Your task to perform on an android device: Turn off the flashlight Image 0: 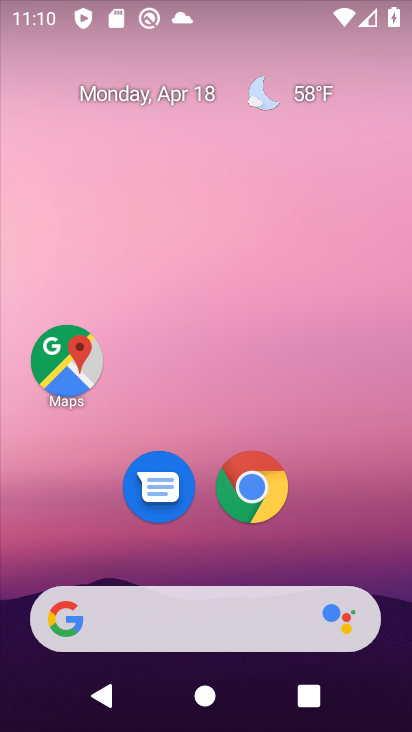
Step 0: drag from (344, 7) to (228, 583)
Your task to perform on an android device: Turn off the flashlight Image 1: 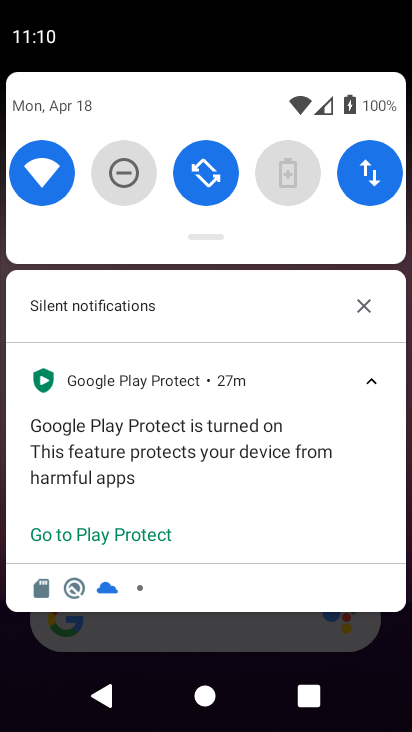
Step 1: drag from (206, 332) to (167, 541)
Your task to perform on an android device: Turn off the flashlight Image 2: 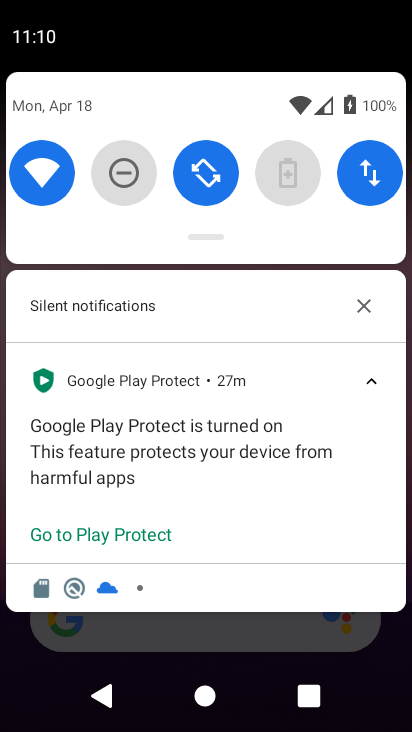
Step 2: drag from (204, 223) to (134, 723)
Your task to perform on an android device: Turn off the flashlight Image 3: 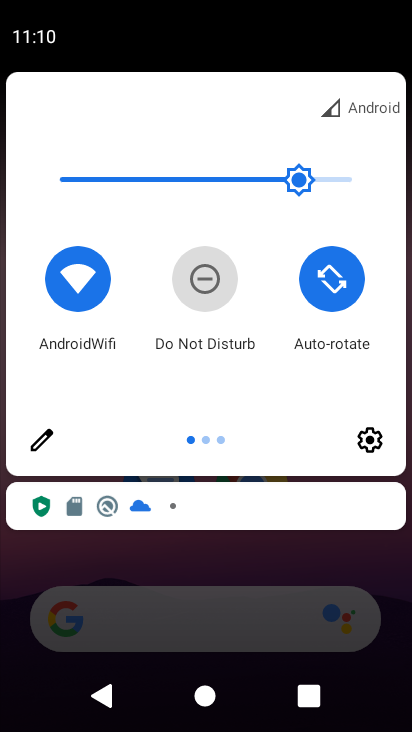
Step 3: click (43, 440)
Your task to perform on an android device: Turn off the flashlight Image 4: 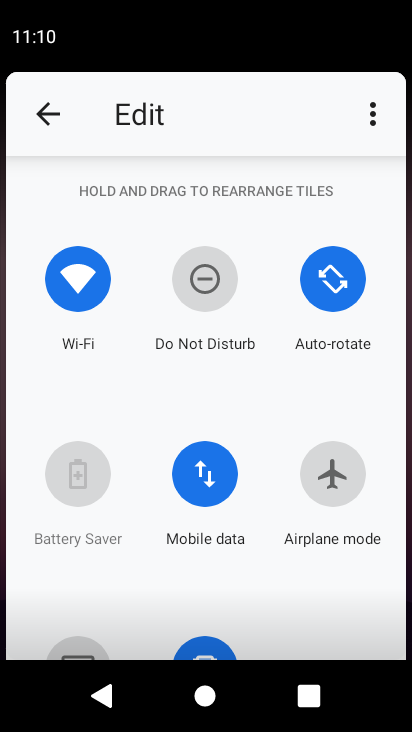
Step 4: task complete